Your task to perform on an android device: Open the Play Movies app and select the watchlist tab. Image 0: 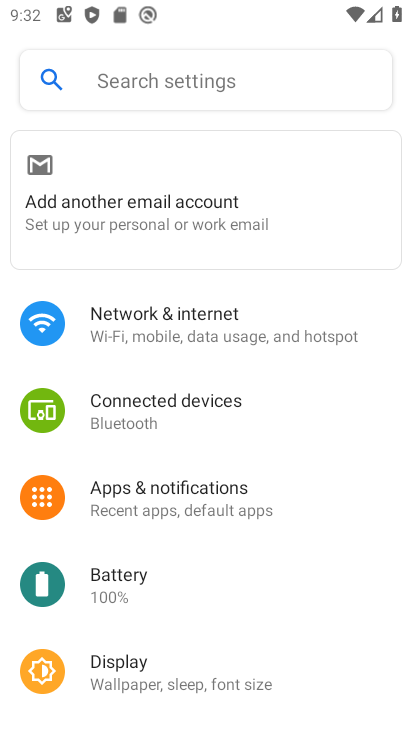
Step 0: press home button
Your task to perform on an android device: Open the Play Movies app and select the watchlist tab. Image 1: 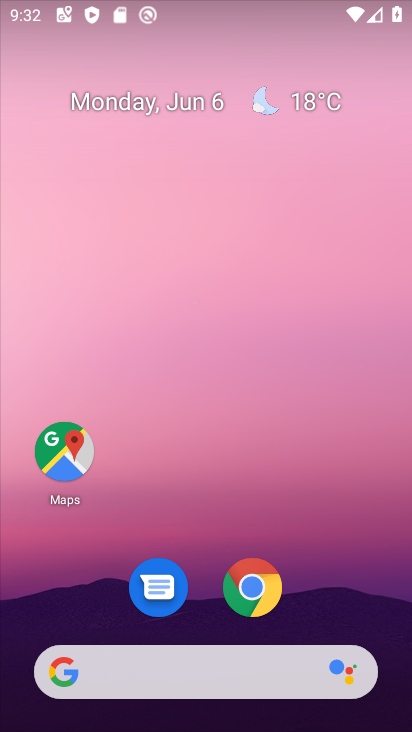
Step 1: drag from (321, 580) to (337, 77)
Your task to perform on an android device: Open the Play Movies app and select the watchlist tab. Image 2: 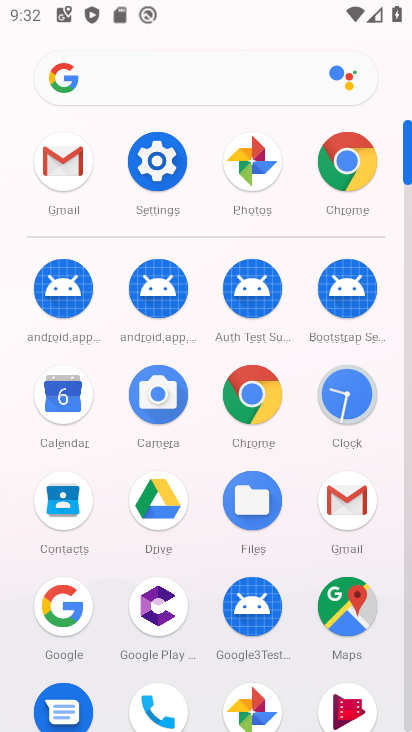
Step 2: click (340, 712)
Your task to perform on an android device: Open the Play Movies app and select the watchlist tab. Image 3: 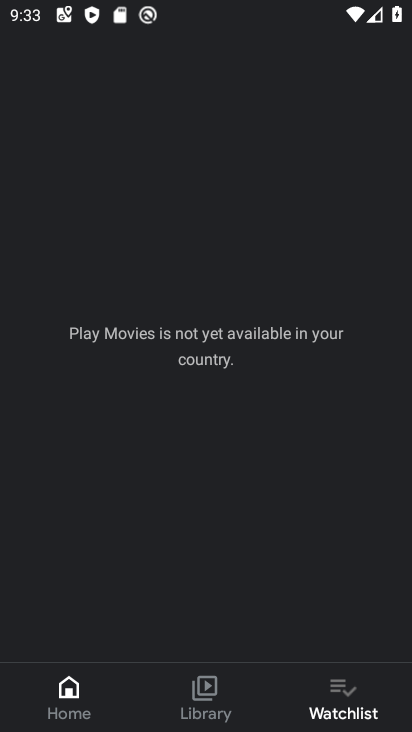
Step 3: task complete